Your task to perform on an android device: see tabs open on other devices in the chrome app Image 0: 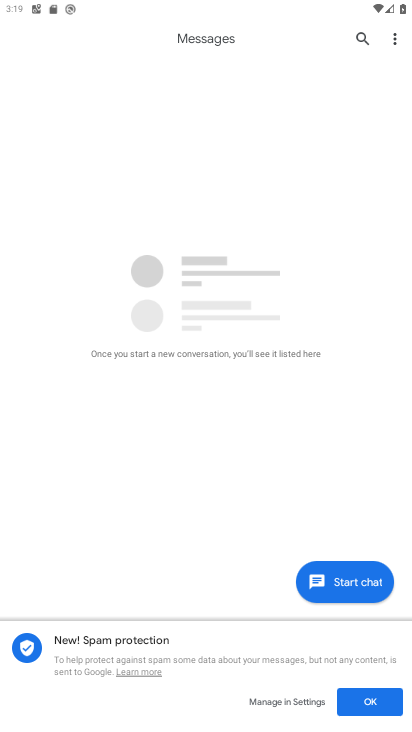
Step 0: press home button
Your task to perform on an android device: see tabs open on other devices in the chrome app Image 1: 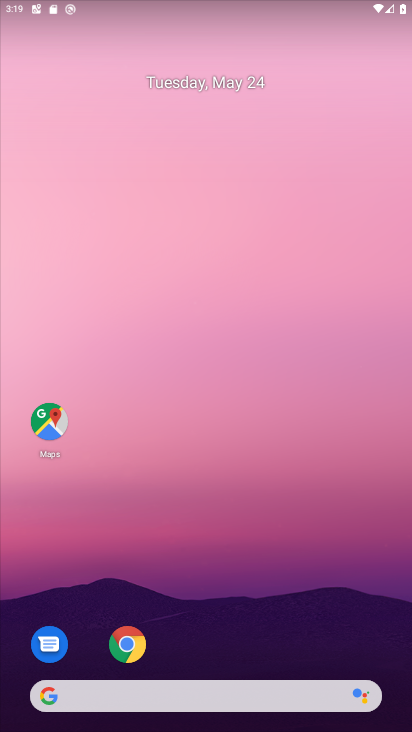
Step 1: click (249, 641)
Your task to perform on an android device: see tabs open on other devices in the chrome app Image 2: 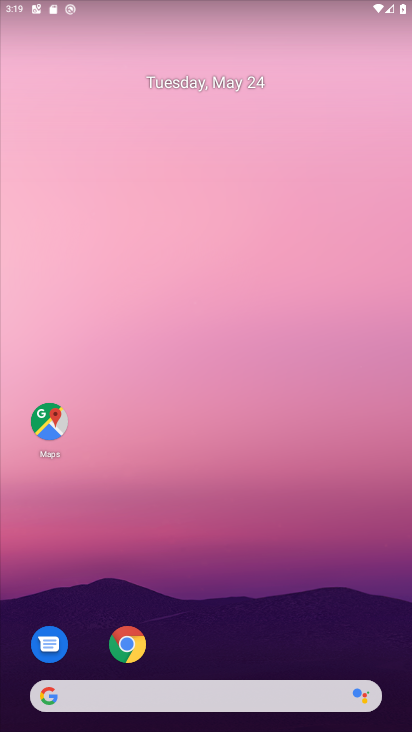
Step 2: click (123, 641)
Your task to perform on an android device: see tabs open on other devices in the chrome app Image 3: 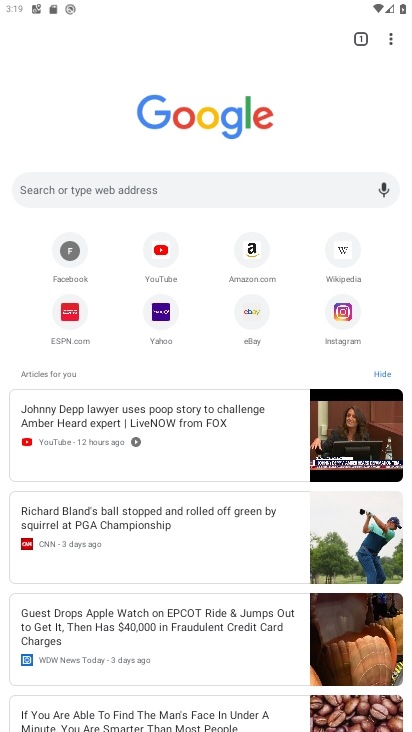
Step 3: click (396, 41)
Your task to perform on an android device: see tabs open on other devices in the chrome app Image 4: 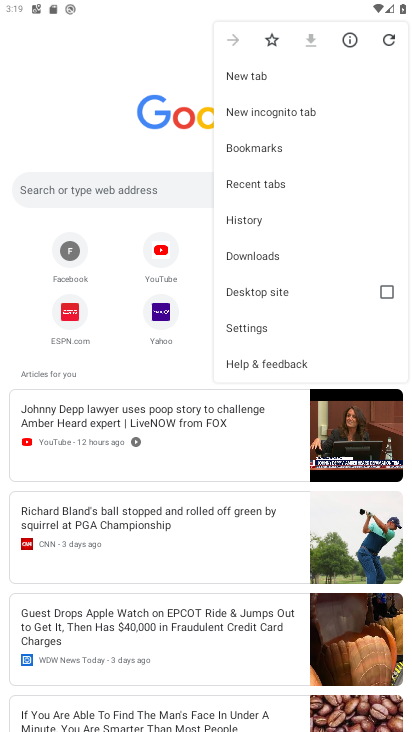
Step 4: click (308, 218)
Your task to perform on an android device: see tabs open on other devices in the chrome app Image 5: 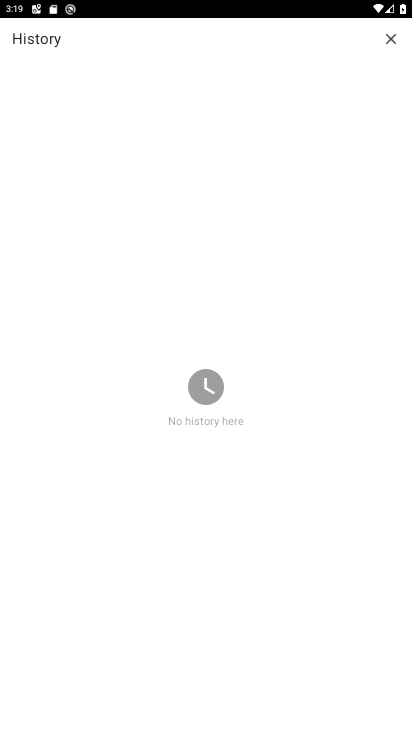
Step 5: task complete